Your task to perform on an android device: refresh tabs in the chrome app Image 0: 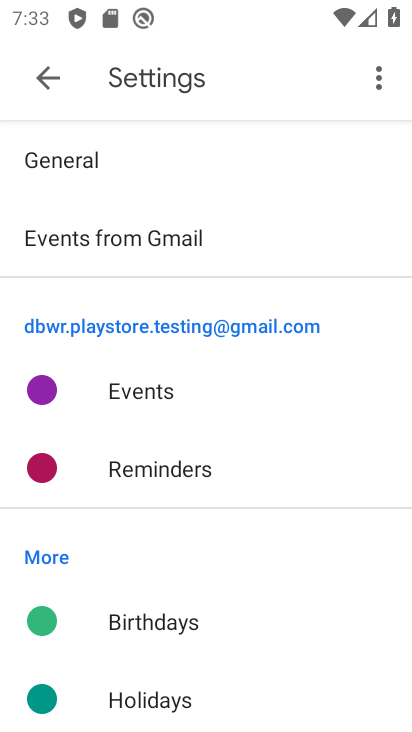
Step 0: press home button
Your task to perform on an android device: refresh tabs in the chrome app Image 1: 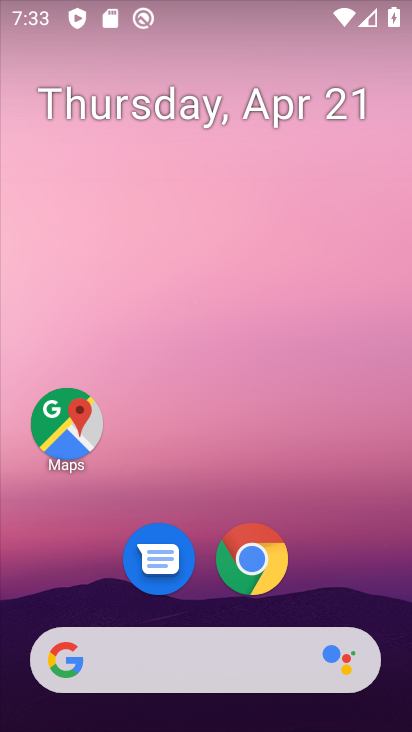
Step 1: click (254, 557)
Your task to perform on an android device: refresh tabs in the chrome app Image 2: 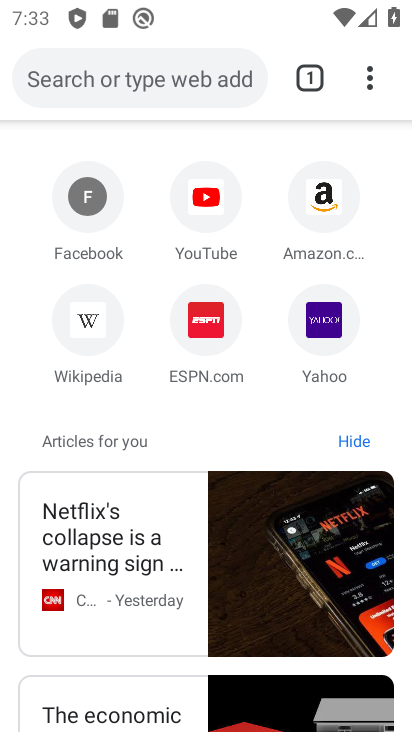
Step 2: click (377, 60)
Your task to perform on an android device: refresh tabs in the chrome app Image 3: 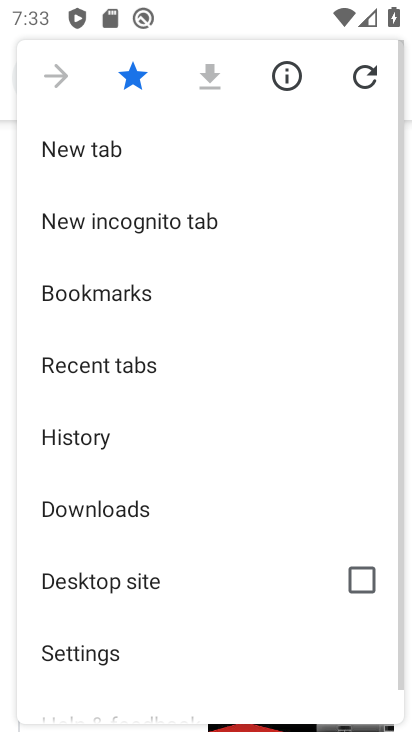
Step 3: click (377, 60)
Your task to perform on an android device: refresh tabs in the chrome app Image 4: 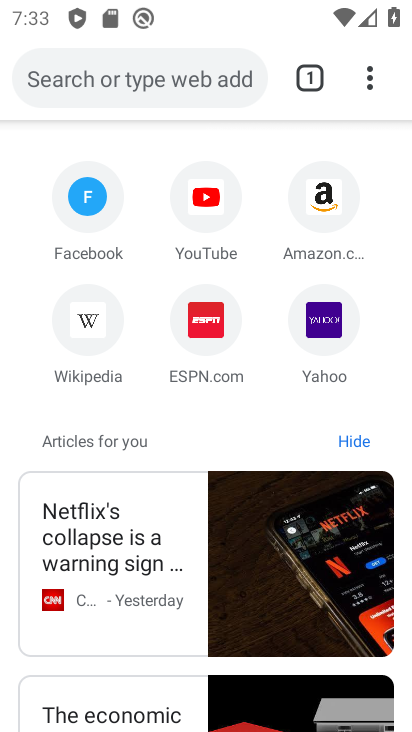
Step 4: task complete